Your task to perform on an android device: Go to calendar. Show me events next week Image 0: 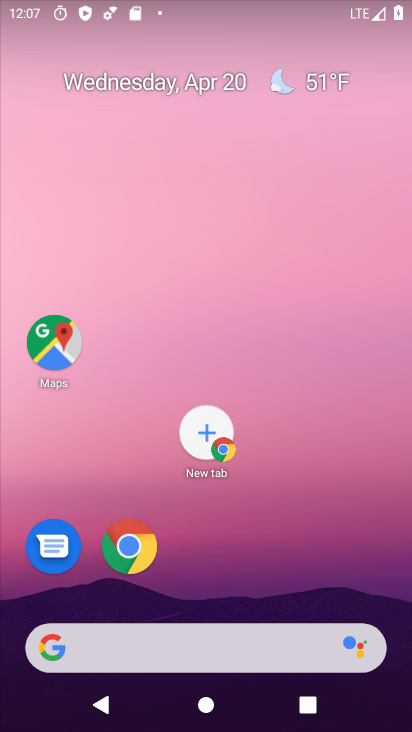
Step 0: click (216, 94)
Your task to perform on an android device: Go to calendar. Show me events next week Image 1: 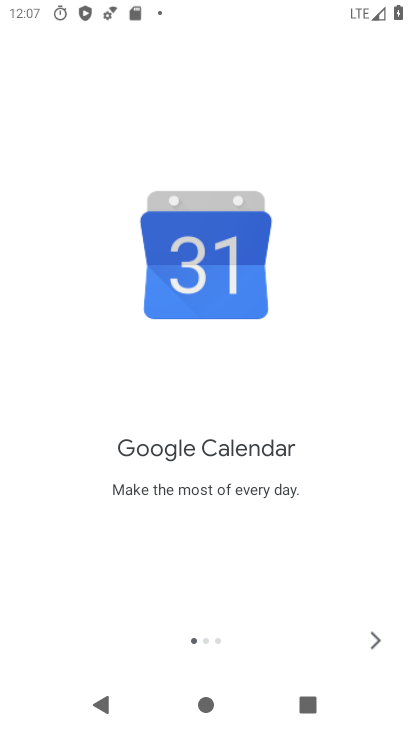
Step 1: click (374, 633)
Your task to perform on an android device: Go to calendar. Show me events next week Image 2: 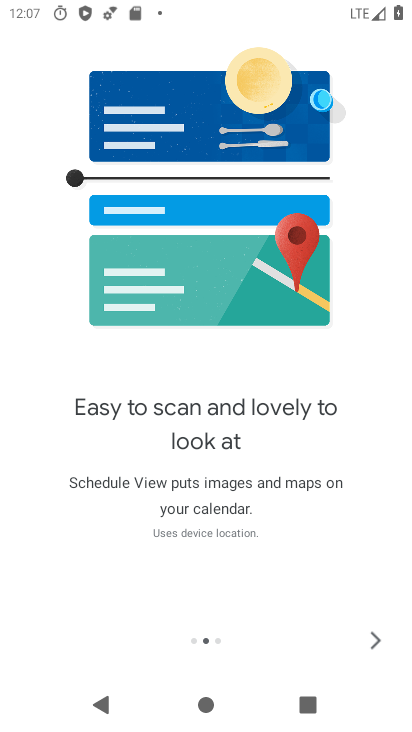
Step 2: click (374, 633)
Your task to perform on an android device: Go to calendar. Show me events next week Image 3: 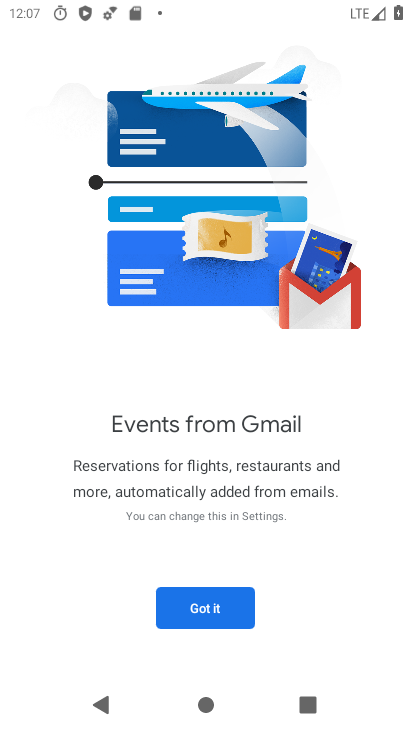
Step 3: click (231, 616)
Your task to perform on an android device: Go to calendar. Show me events next week Image 4: 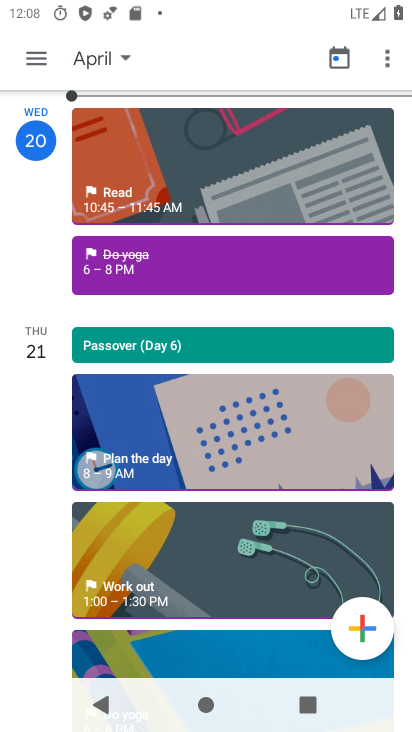
Step 4: click (121, 73)
Your task to perform on an android device: Go to calendar. Show me events next week Image 5: 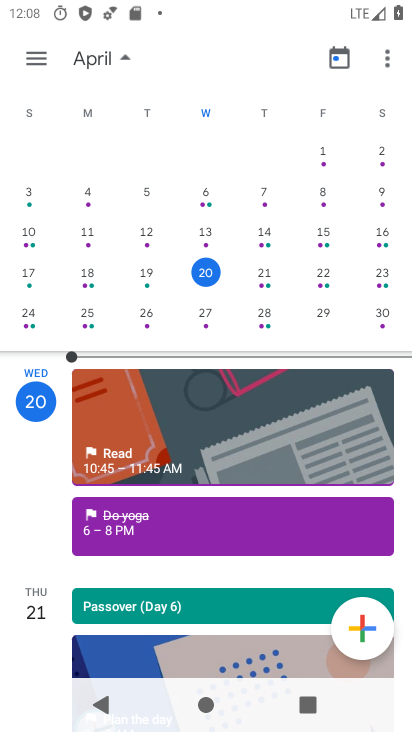
Step 5: click (267, 318)
Your task to perform on an android device: Go to calendar. Show me events next week Image 6: 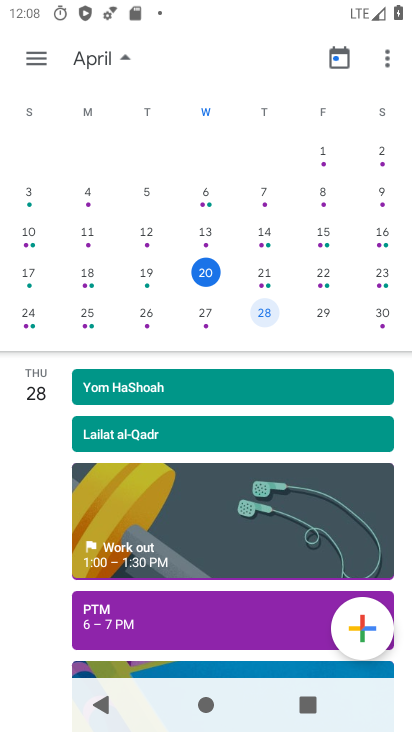
Step 6: task complete